Your task to perform on an android device: When is my next meeting? Image 0: 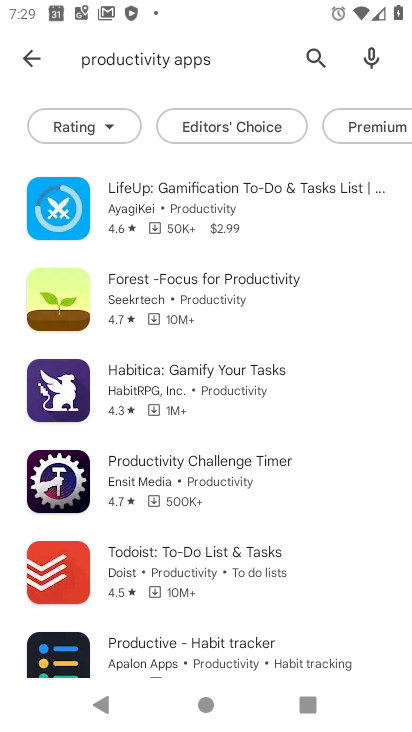
Step 0: press home button
Your task to perform on an android device: When is my next meeting? Image 1: 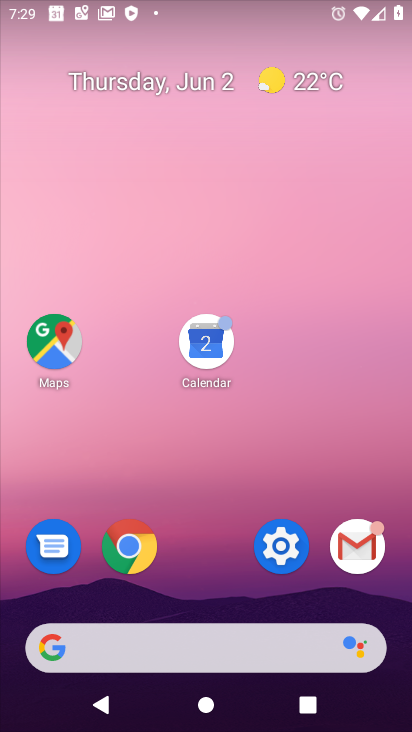
Step 1: click (176, 671)
Your task to perform on an android device: When is my next meeting? Image 2: 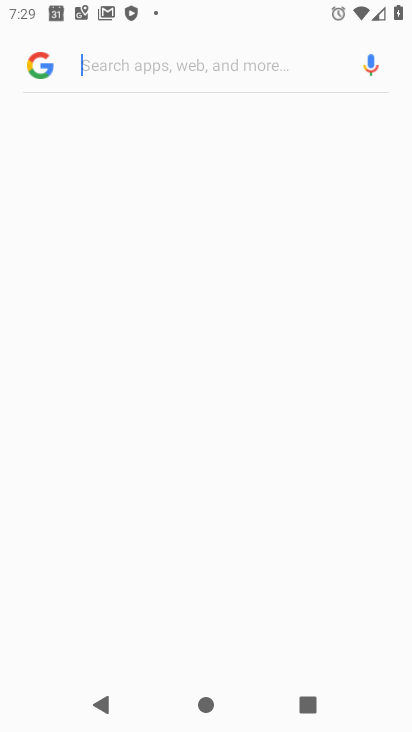
Step 2: click (203, 375)
Your task to perform on an android device: When is my next meeting? Image 3: 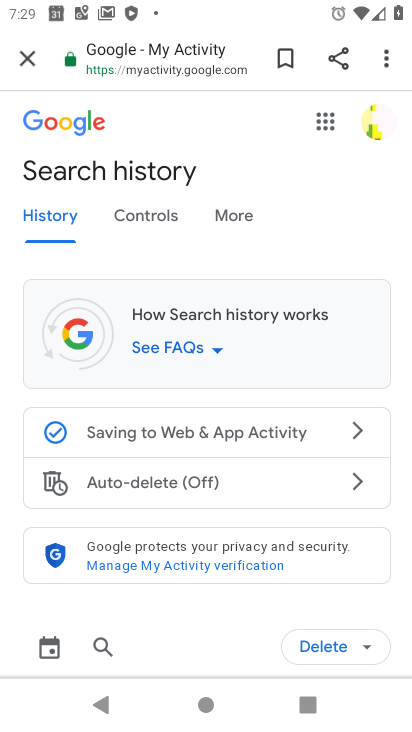
Step 3: click (17, 55)
Your task to perform on an android device: When is my next meeting? Image 4: 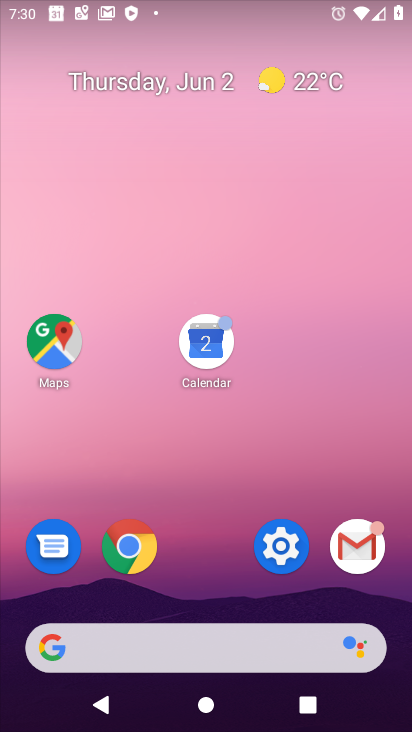
Step 4: click (207, 346)
Your task to perform on an android device: When is my next meeting? Image 5: 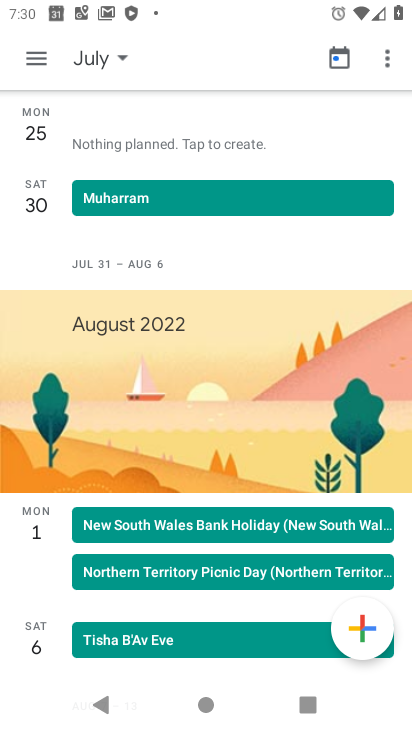
Step 5: click (41, 63)
Your task to perform on an android device: When is my next meeting? Image 6: 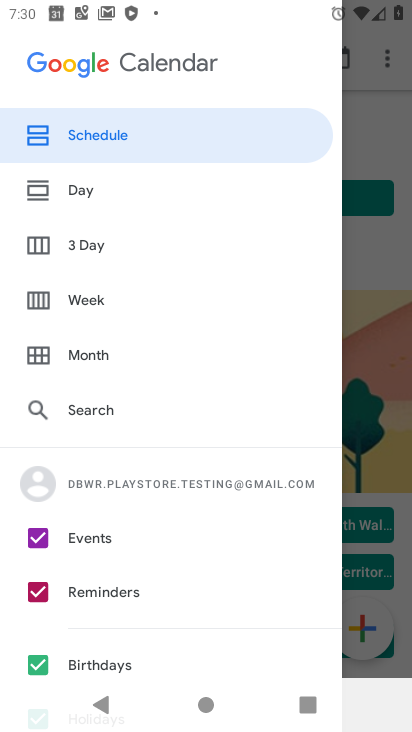
Step 6: click (106, 353)
Your task to perform on an android device: When is my next meeting? Image 7: 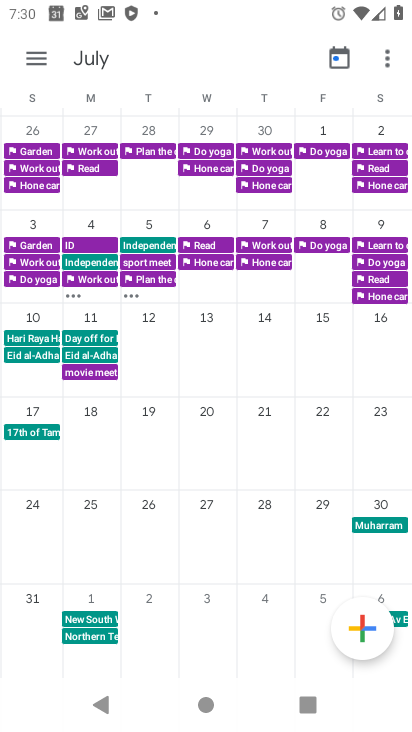
Step 7: click (35, 75)
Your task to perform on an android device: When is my next meeting? Image 8: 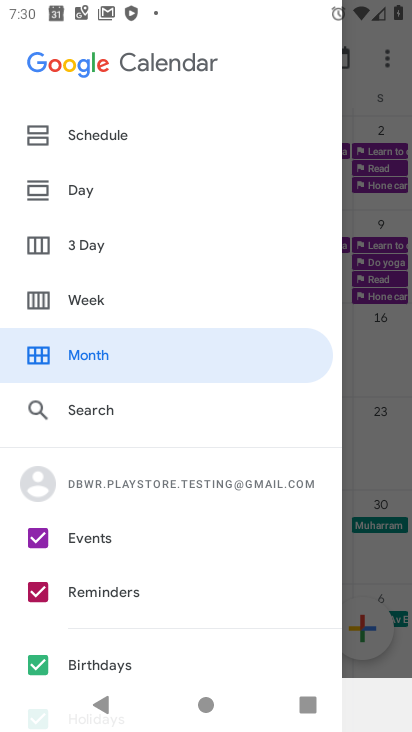
Step 8: click (106, 347)
Your task to perform on an android device: When is my next meeting? Image 9: 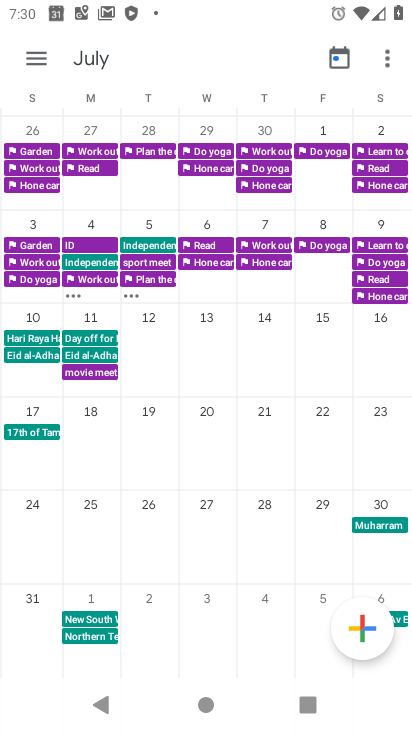
Step 9: drag from (43, 308) to (397, 293)
Your task to perform on an android device: When is my next meeting? Image 10: 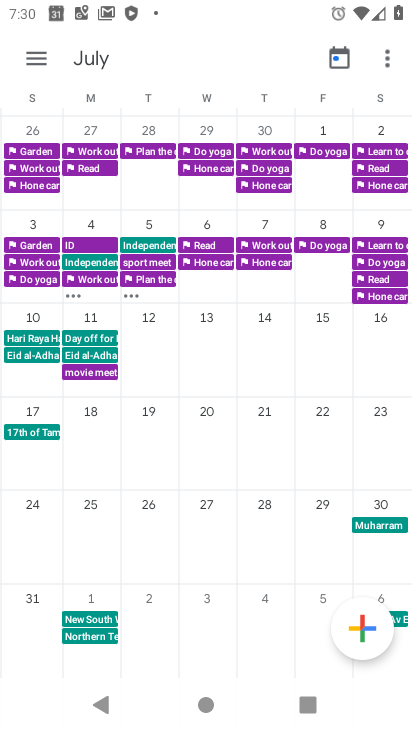
Step 10: drag from (26, 458) to (401, 383)
Your task to perform on an android device: When is my next meeting? Image 11: 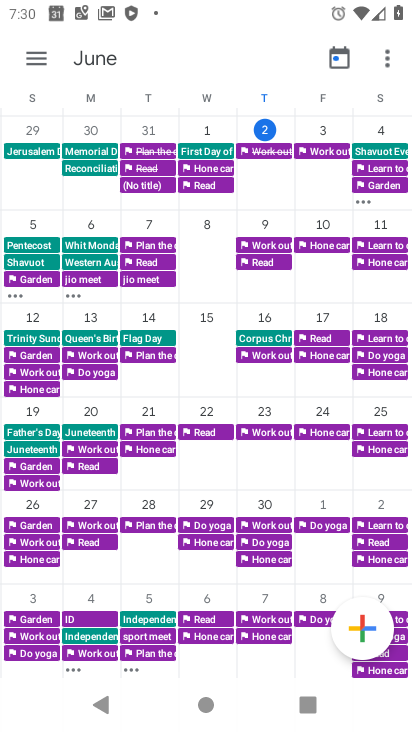
Step 11: drag from (46, 407) to (127, 399)
Your task to perform on an android device: When is my next meeting? Image 12: 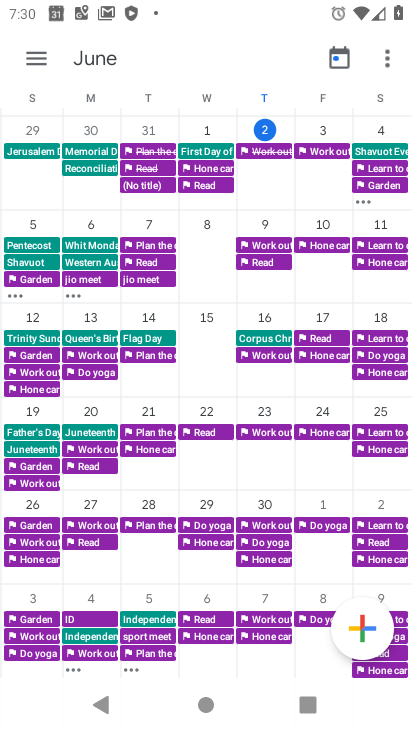
Step 12: click (257, 142)
Your task to perform on an android device: When is my next meeting? Image 13: 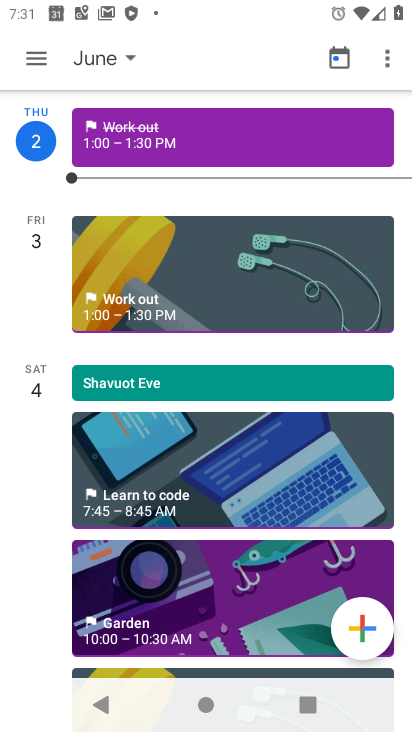
Step 13: task complete